Your task to perform on an android device: open app "Google Home" (install if not already installed) Image 0: 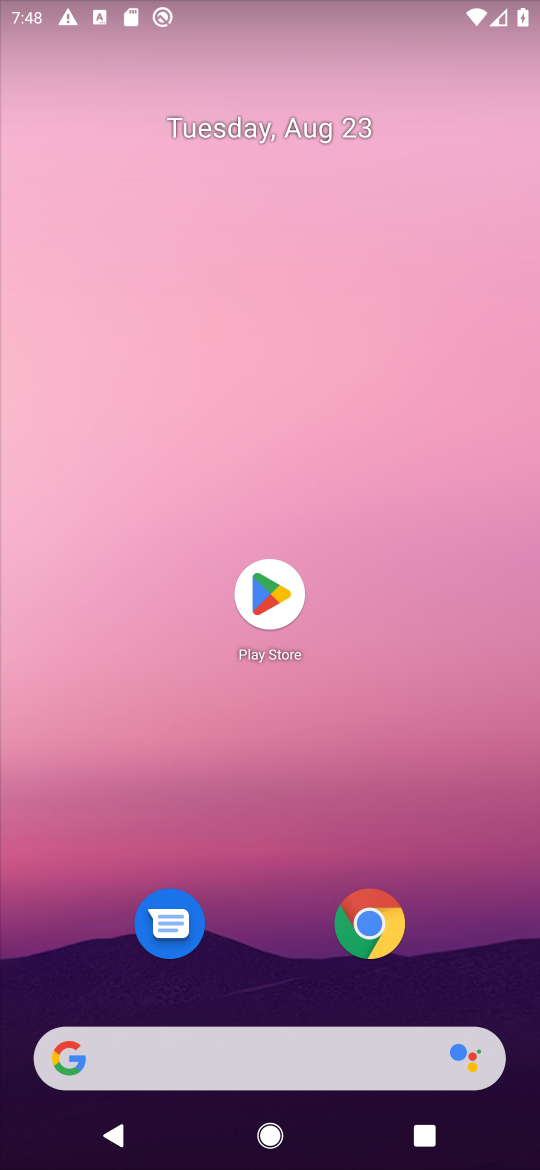
Step 0: click (263, 597)
Your task to perform on an android device: open app "Google Home" (install if not already installed) Image 1: 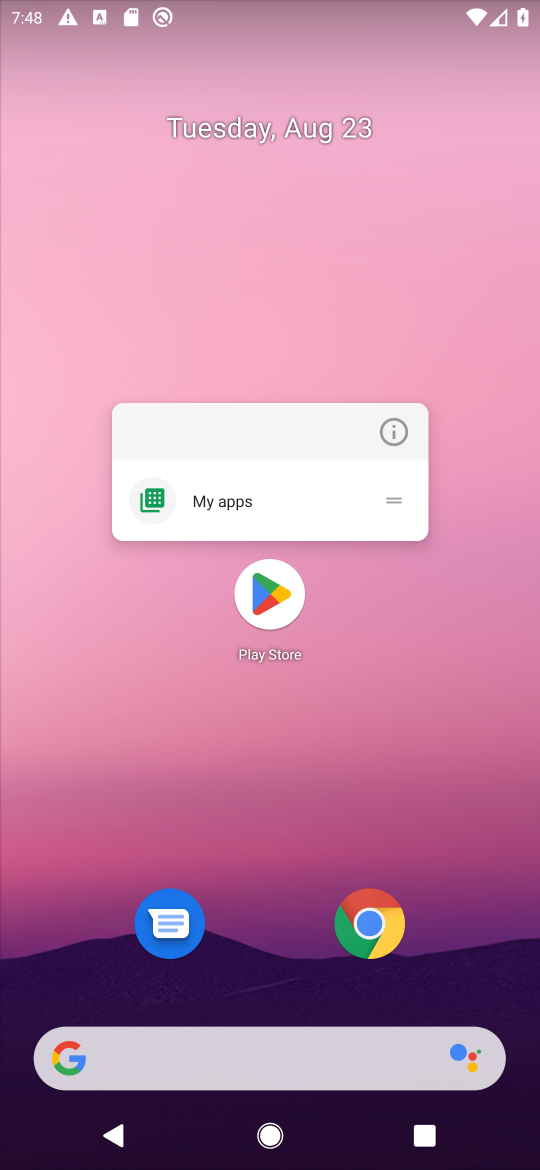
Step 1: click (263, 597)
Your task to perform on an android device: open app "Google Home" (install if not already installed) Image 2: 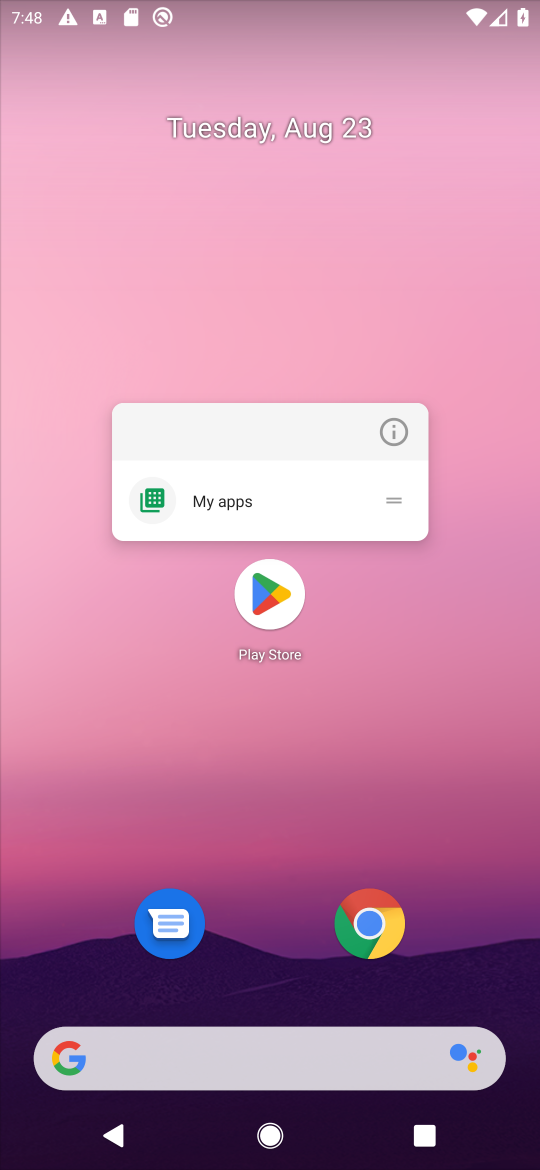
Step 2: click (263, 600)
Your task to perform on an android device: open app "Google Home" (install if not already installed) Image 3: 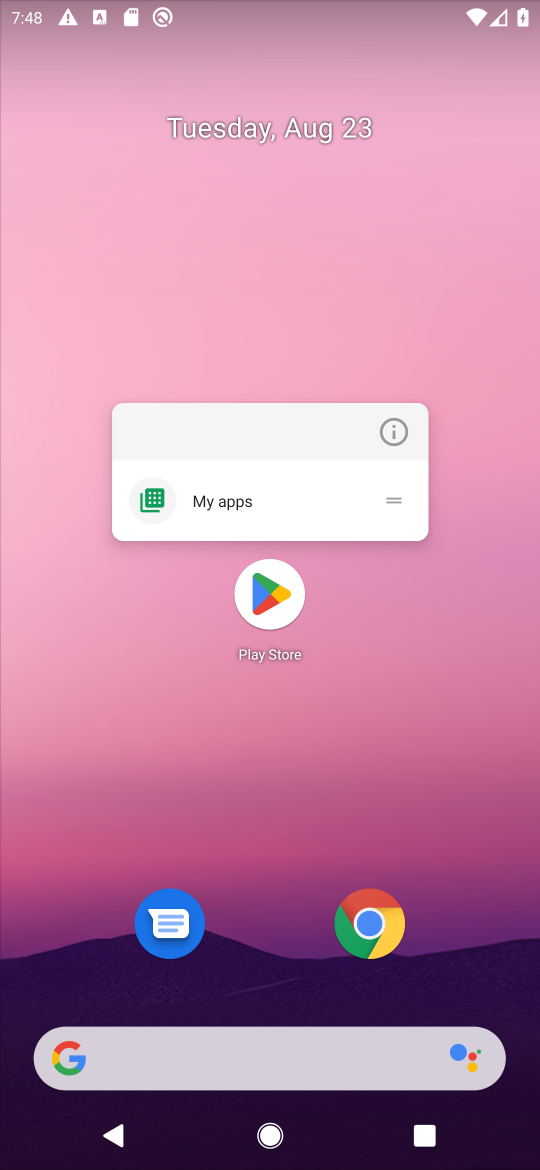
Step 3: click (263, 600)
Your task to perform on an android device: open app "Google Home" (install if not already installed) Image 4: 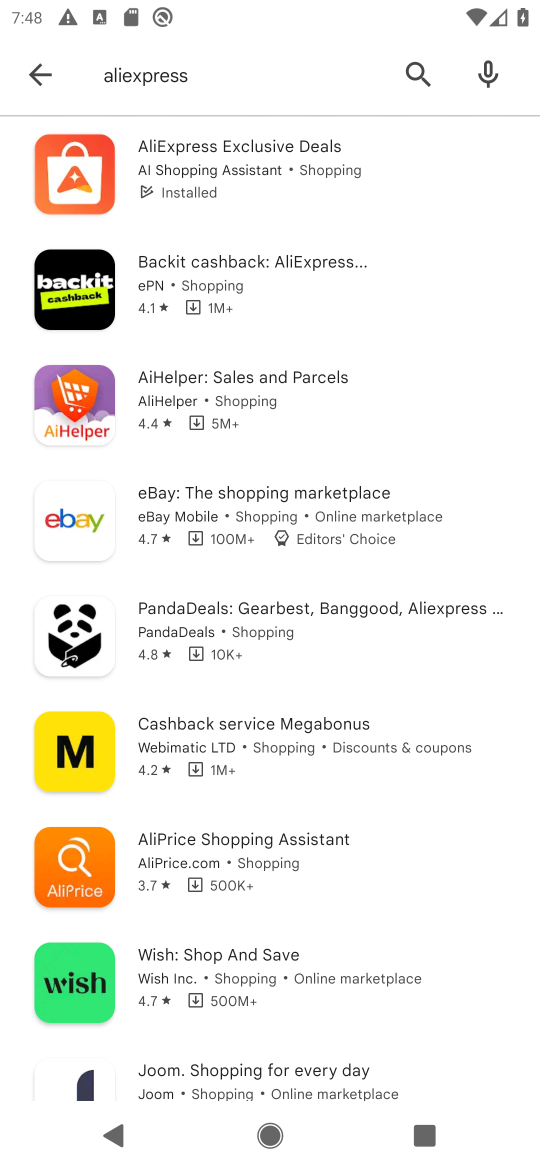
Step 4: click (412, 72)
Your task to perform on an android device: open app "Google Home" (install if not already installed) Image 5: 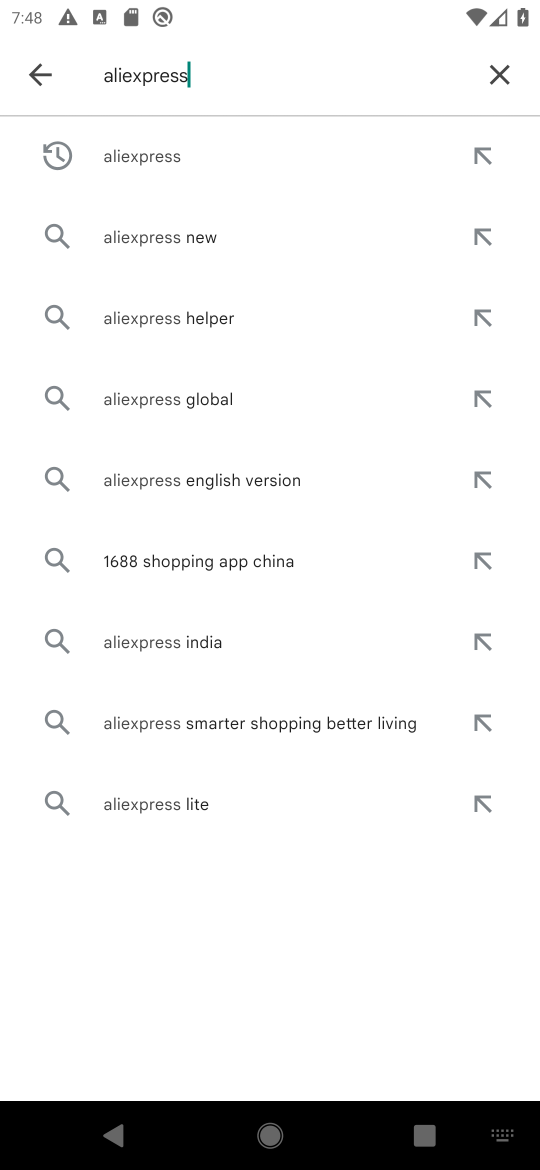
Step 5: click (506, 76)
Your task to perform on an android device: open app "Google Home" (install if not already installed) Image 6: 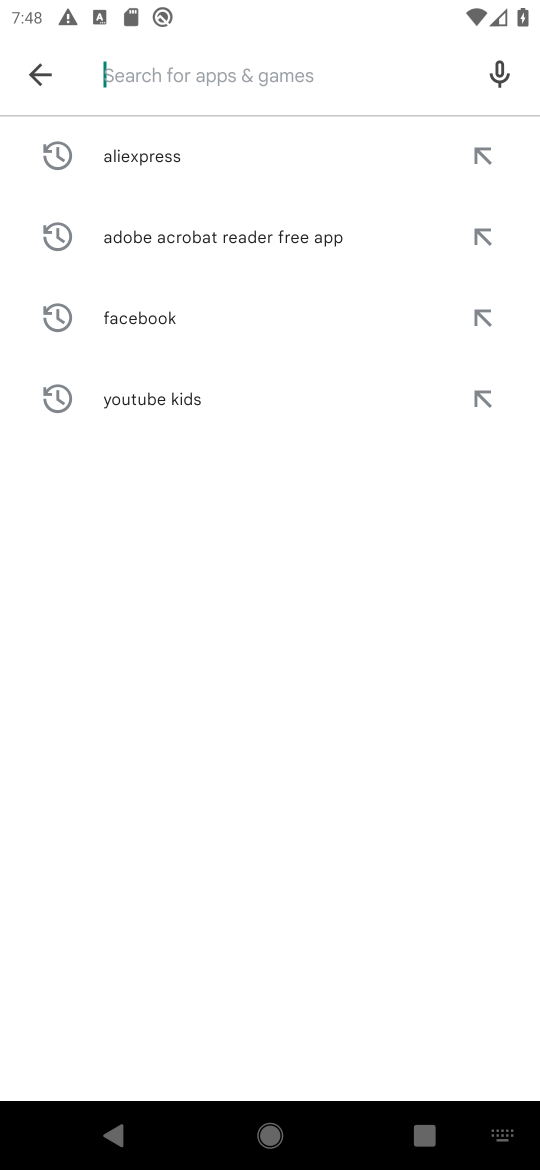
Step 6: type "Google Home"
Your task to perform on an android device: open app "Google Home" (install if not already installed) Image 7: 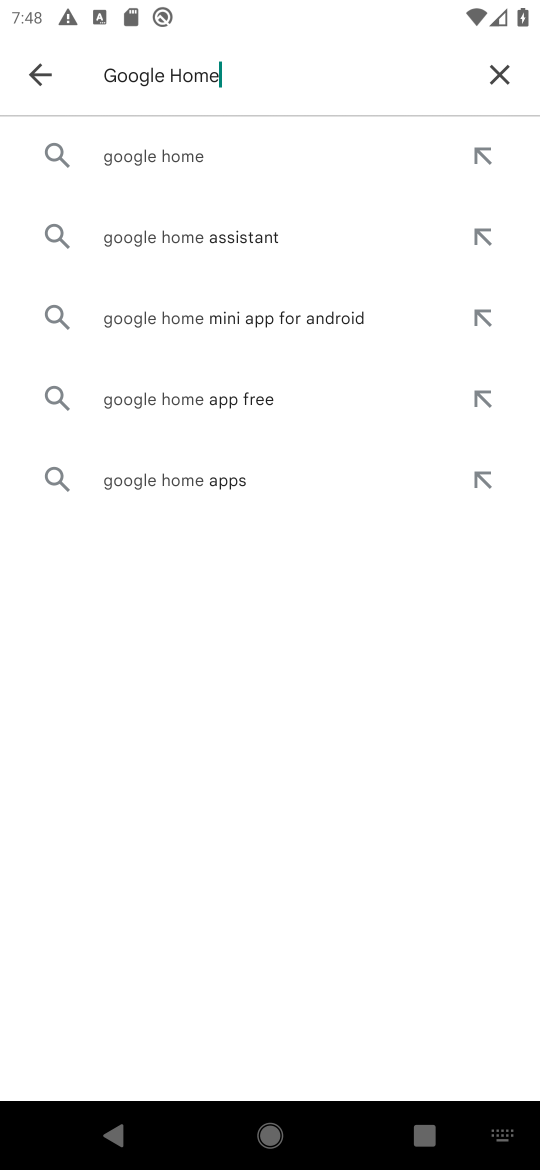
Step 7: click (144, 156)
Your task to perform on an android device: open app "Google Home" (install if not already installed) Image 8: 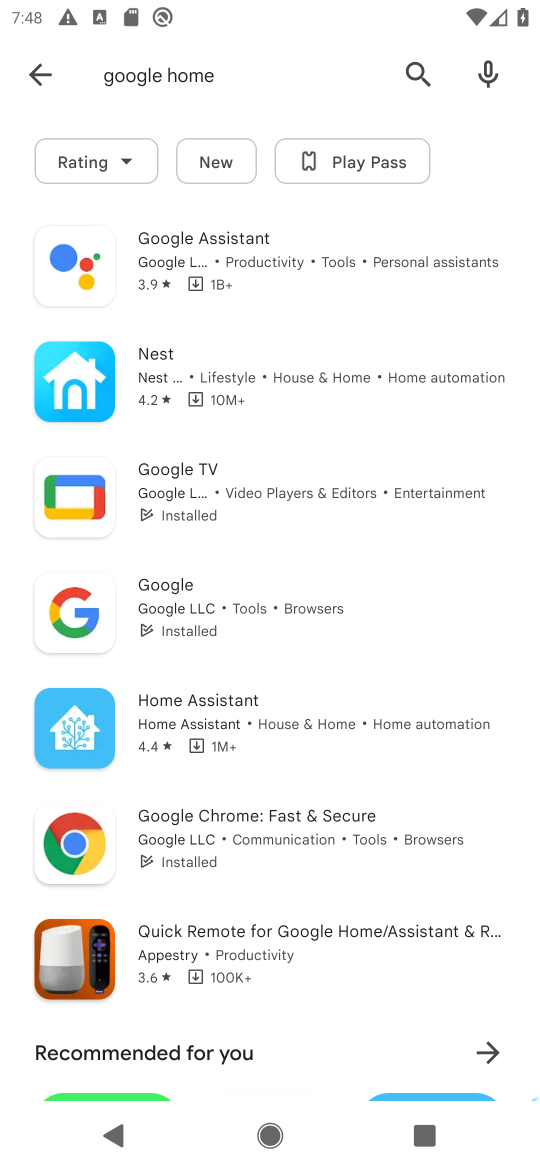
Step 8: task complete